Your task to perform on an android device: Open ESPN.com Image 0: 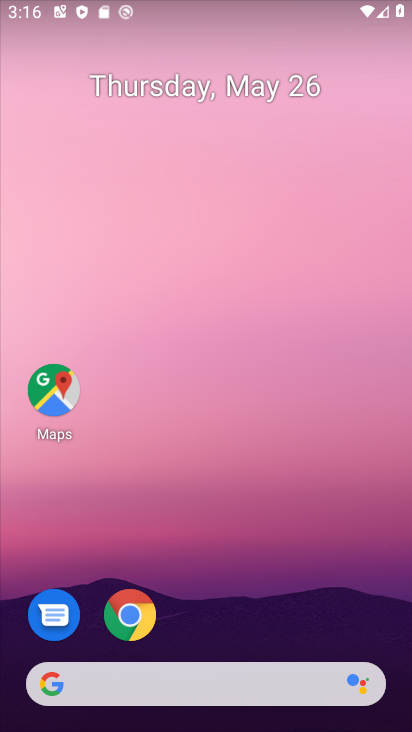
Step 0: click (142, 612)
Your task to perform on an android device: Open ESPN.com Image 1: 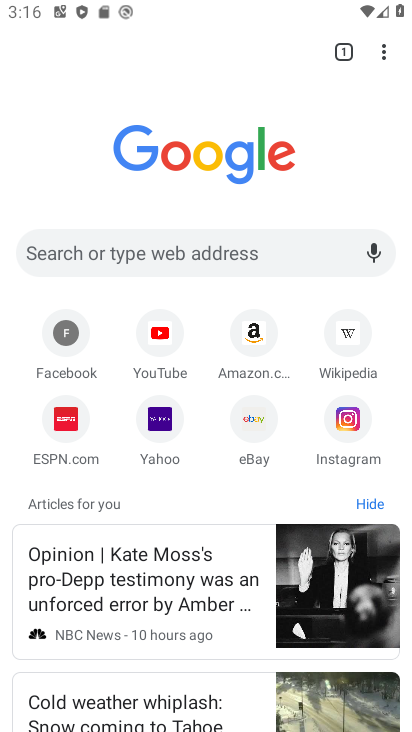
Step 1: click (75, 429)
Your task to perform on an android device: Open ESPN.com Image 2: 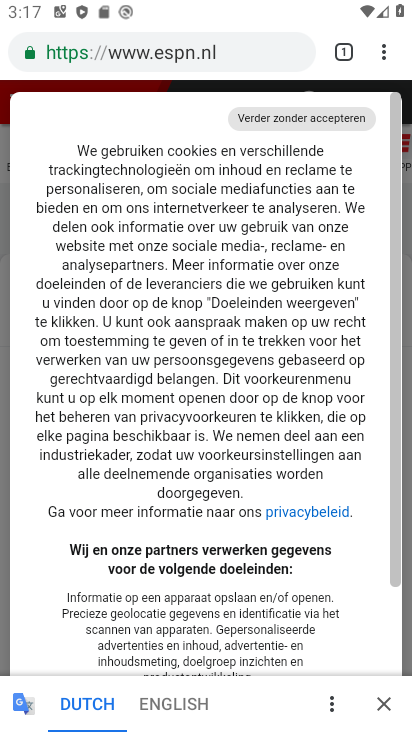
Step 2: drag from (371, 639) to (338, 268)
Your task to perform on an android device: Open ESPN.com Image 3: 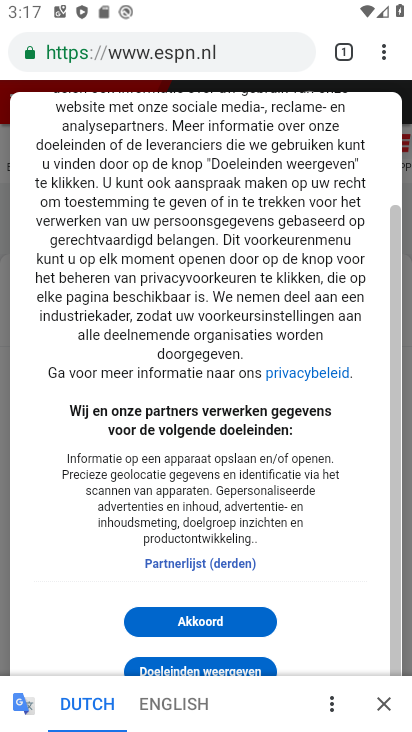
Step 3: click (178, 610)
Your task to perform on an android device: Open ESPN.com Image 4: 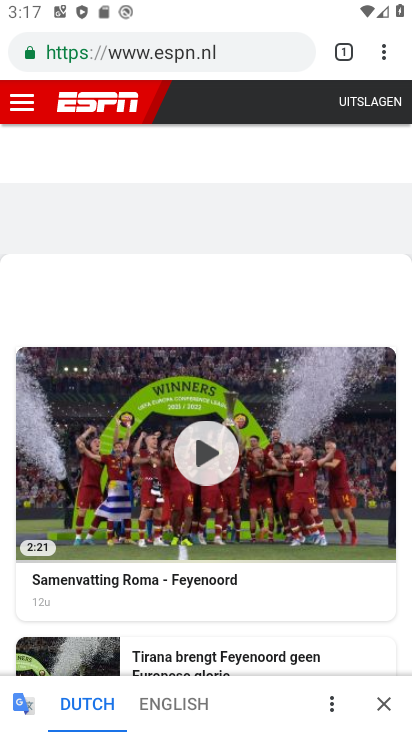
Step 4: task complete